Your task to perform on an android device: toggle airplane mode Image 0: 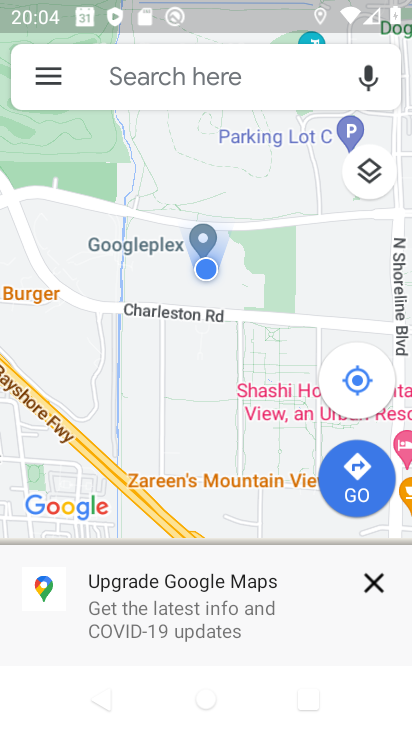
Step 0: press home button
Your task to perform on an android device: toggle airplane mode Image 1: 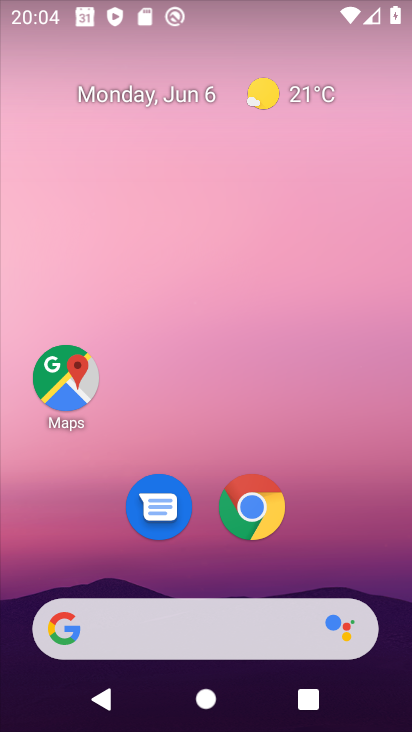
Step 1: drag from (202, 561) to (200, 257)
Your task to perform on an android device: toggle airplane mode Image 2: 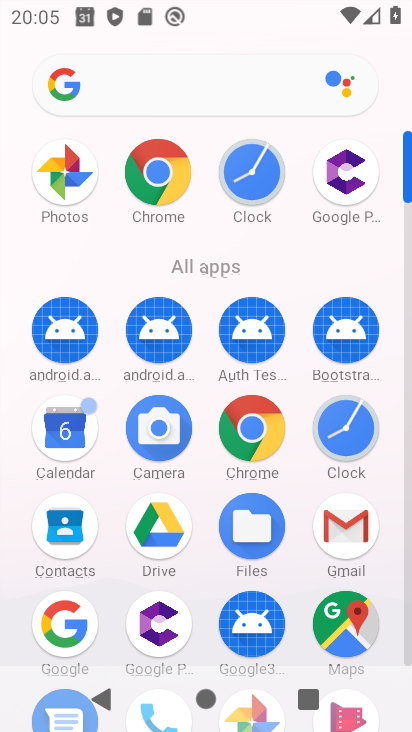
Step 2: drag from (206, 624) to (258, 300)
Your task to perform on an android device: toggle airplane mode Image 3: 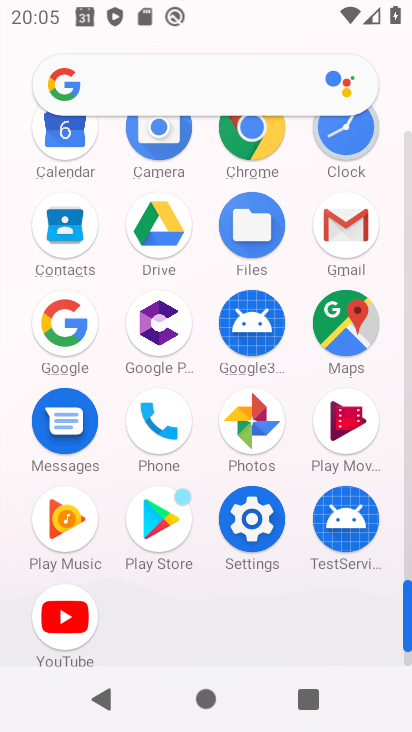
Step 3: click (248, 525)
Your task to perform on an android device: toggle airplane mode Image 4: 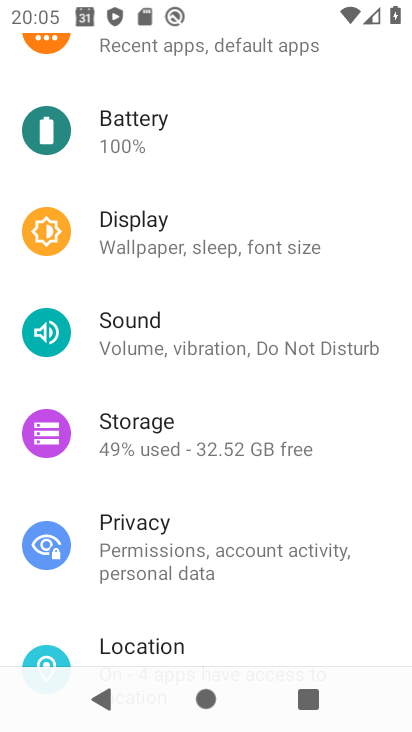
Step 4: drag from (220, 196) to (207, 613)
Your task to perform on an android device: toggle airplane mode Image 5: 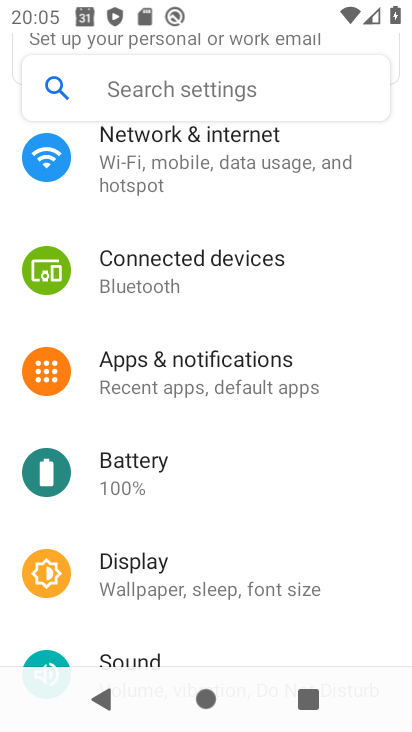
Step 5: drag from (227, 228) to (209, 562)
Your task to perform on an android device: toggle airplane mode Image 6: 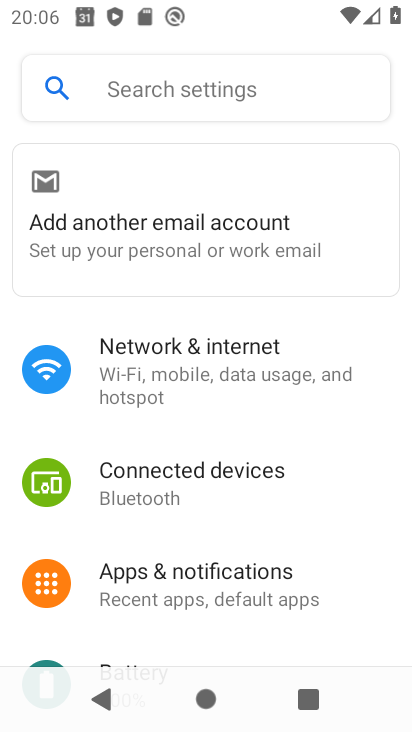
Step 6: click (130, 364)
Your task to perform on an android device: toggle airplane mode Image 7: 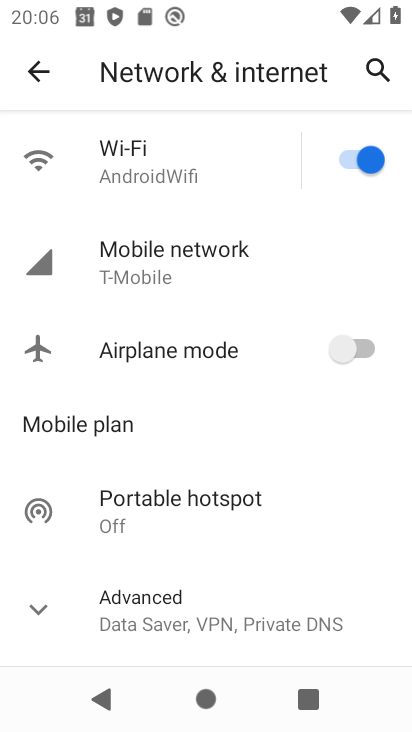
Step 7: click (367, 346)
Your task to perform on an android device: toggle airplane mode Image 8: 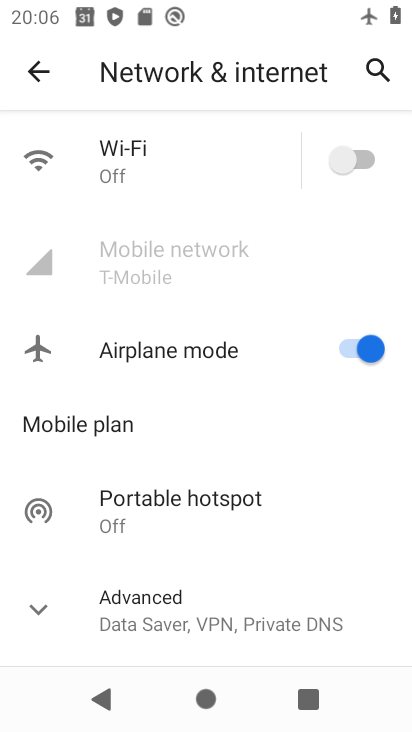
Step 8: task complete